Your task to perform on an android device: Search for vegetarian restaurants on Maps Image 0: 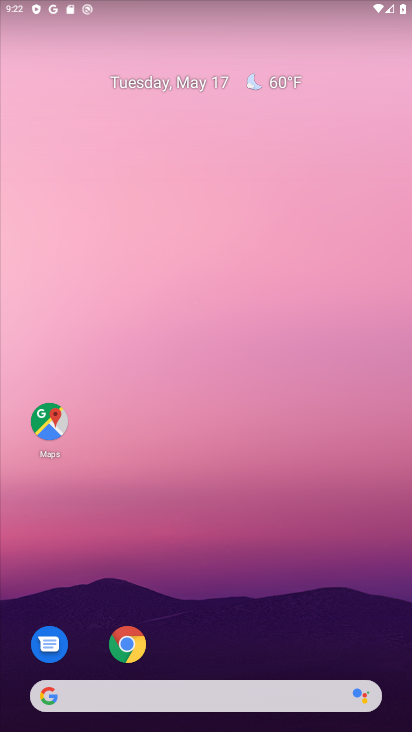
Step 0: click (58, 415)
Your task to perform on an android device: Search for vegetarian restaurants on Maps Image 1: 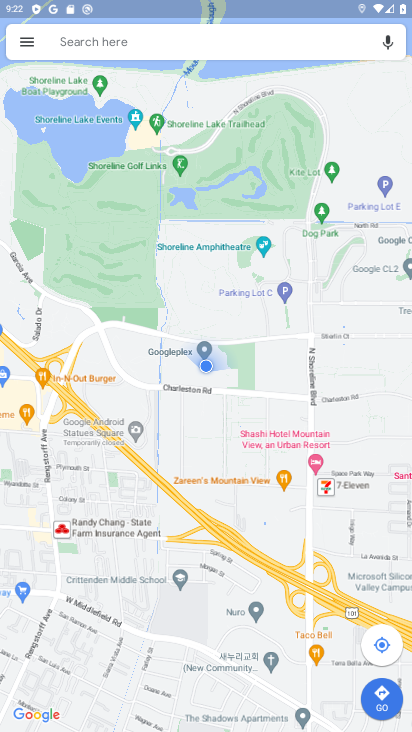
Step 1: click (91, 43)
Your task to perform on an android device: Search for vegetarian restaurants on Maps Image 2: 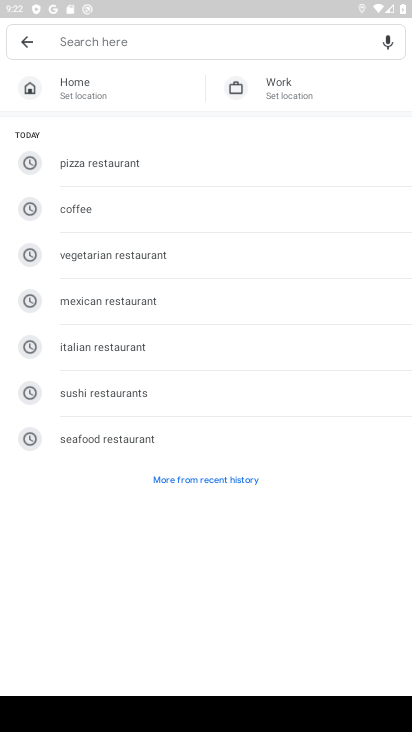
Step 2: click (136, 262)
Your task to perform on an android device: Search for vegetarian restaurants on Maps Image 3: 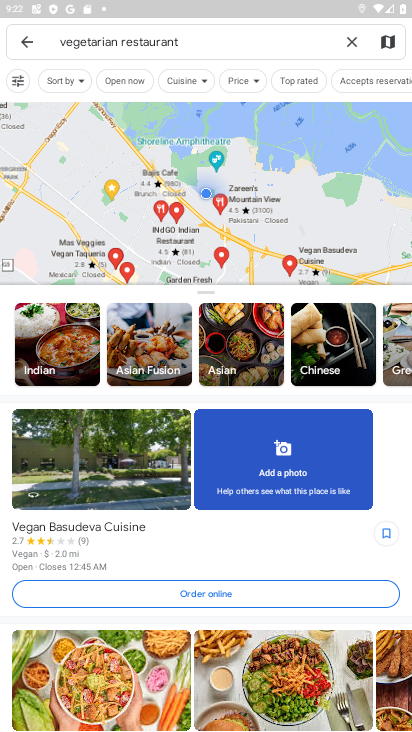
Step 3: task complete